Your task to perform on an android device: Go to network settings Image 0: 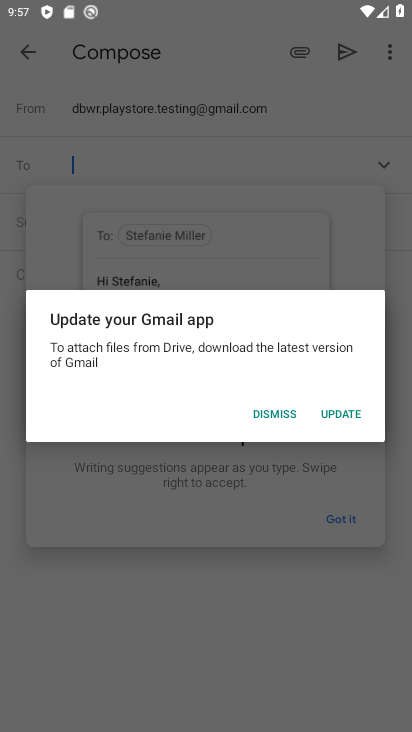
Step 0: press home button
Your task to perform on an android device: Go to network settings Image 1: 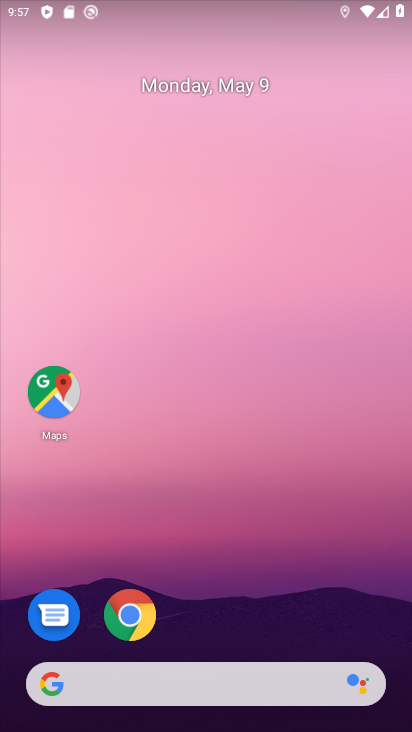
Step 1: drag from (211, 630) to (235, 302)
Your task to perform on an android device: Go to network settings Image 2: 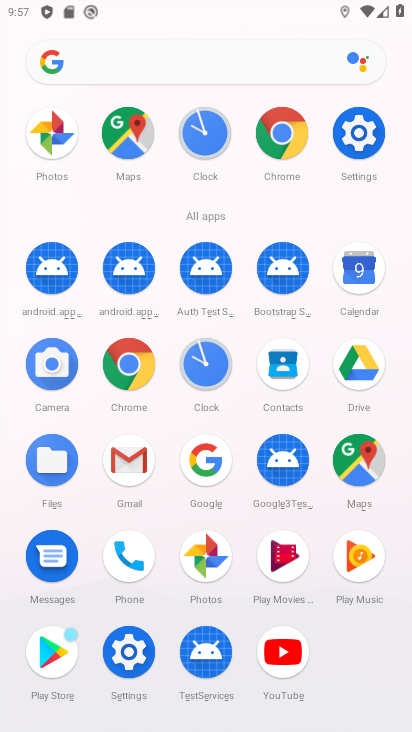
Step 2: click (361, 136)
Your task to perform on an android device: Go to network settings Image 3: 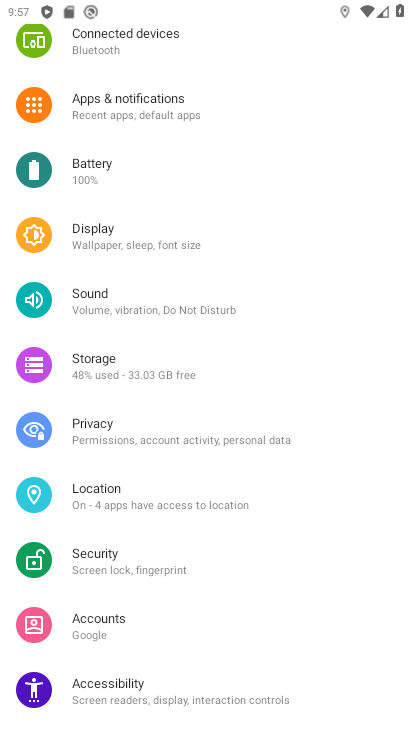
Step 3: drag from (158, 148) to (161, 601)
Your task to perform on an android device: Go to network settings Image 4: 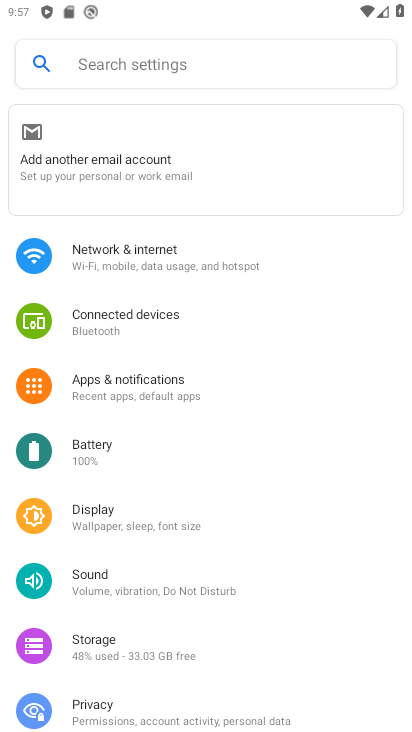
Step 4: click (198, 252)
Your task to perform on an android device: Go to network settings Image 5: 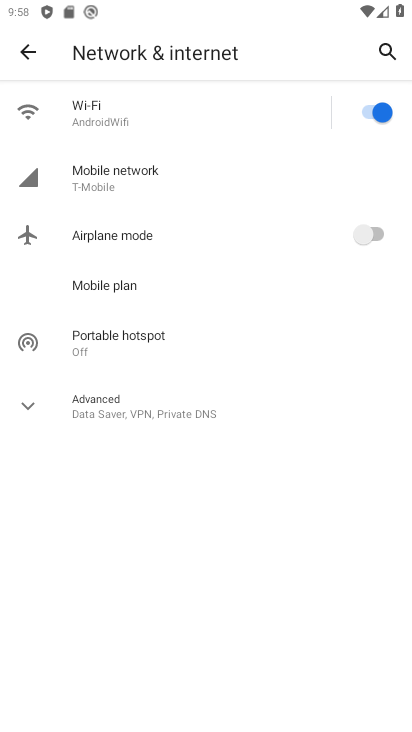
Step 5: click (137, 176)
Your task to perform on an android device: Go to network settings Image 6: 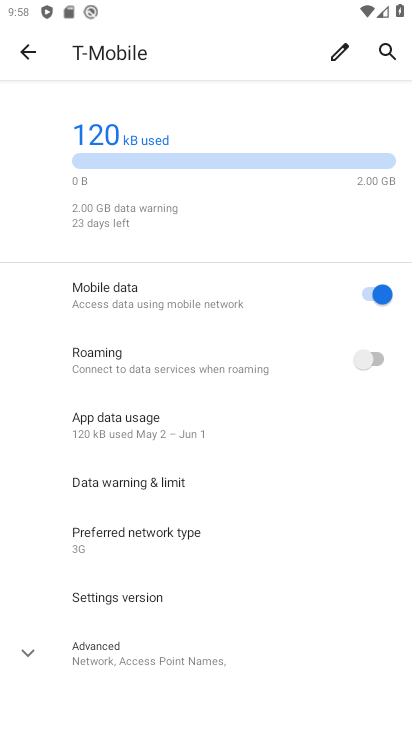
Step 6: task complete